Your task to perform on an android device: Do I have any events tomorrow? Image 0: 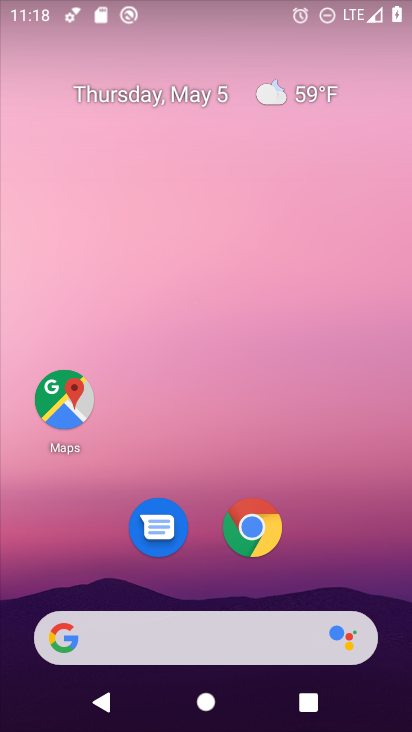
Step 0: drag from (241, 706) to (241, 85)
Your task to perform on an android device: Do I have any events tomorrow? Image 1: 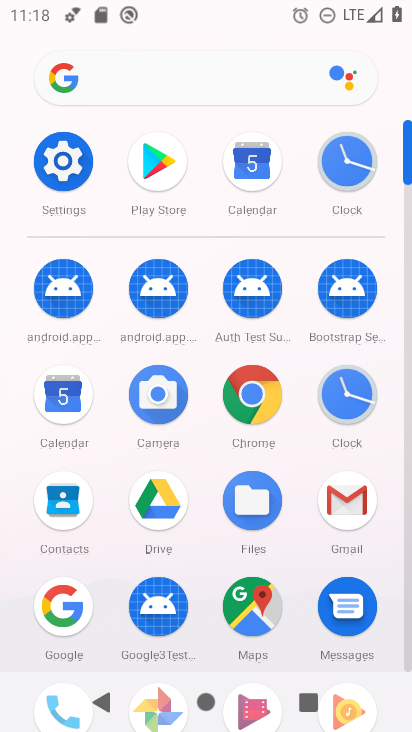
Step 1: click (59, 412)
Your task to perform on an android device: Do I have any events tomorrow? Image 2: 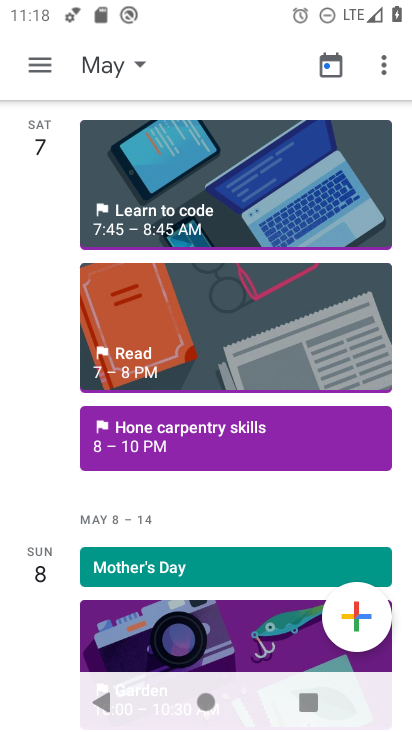
Step 2: task complete